Your task to perform on an android device: Open Chrome and go to settings Image 0: 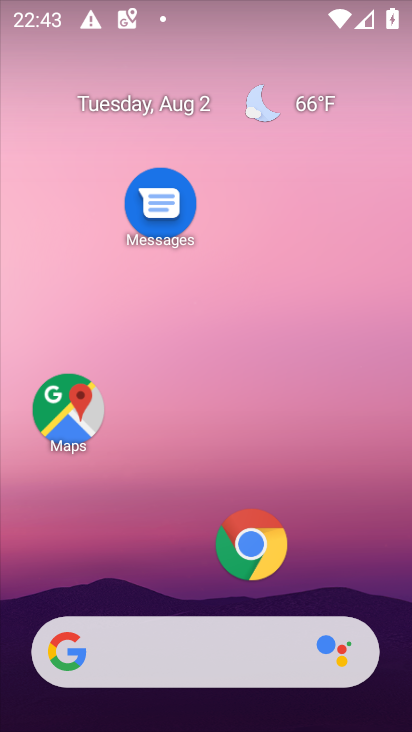
Step 0: click (271, 558)
Your task to perform on an android device: Open Chrome and go to settings Image 1: 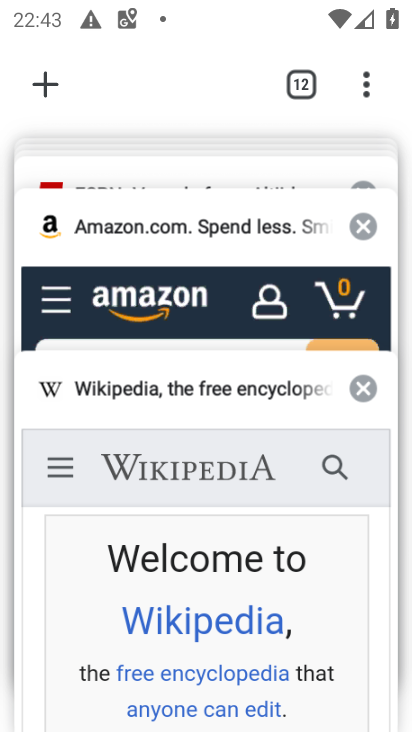
Step 1: click (353, 98)
Your task to perform on an android device: Open Chrome and go to settings Image 2: 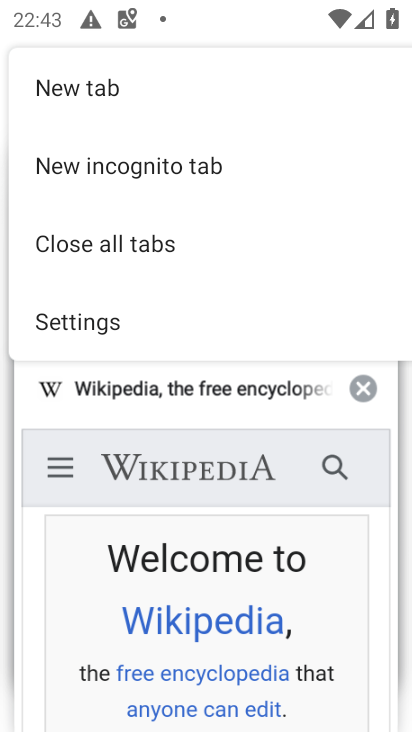
Step 2: click (146, 330)
Your task to perform on an android device: Open Chrome and go to settings Image 3: 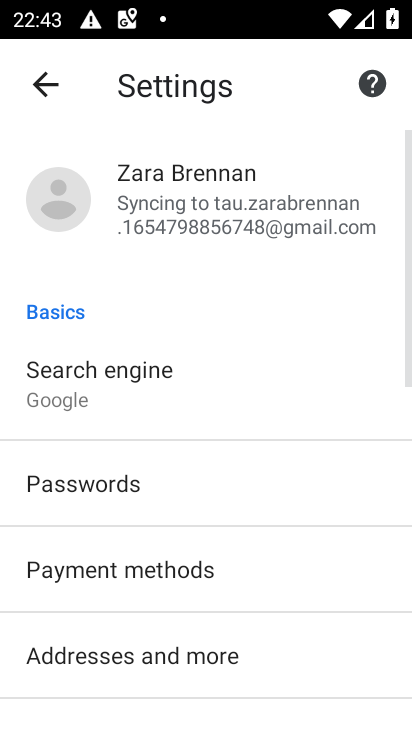
Step 3: task complete